Your task to perform on an android device: See recent photos Image 0: 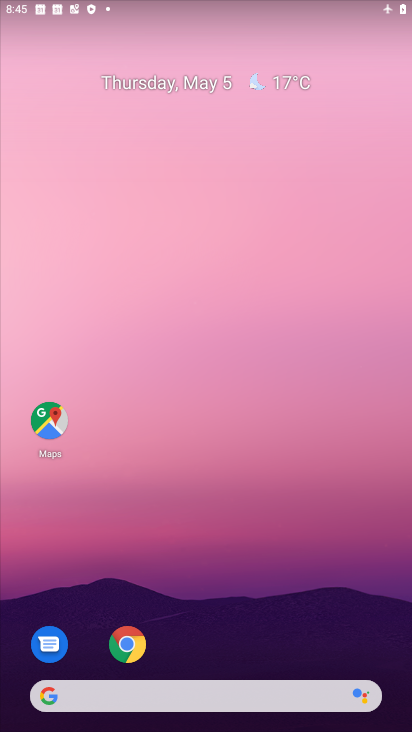
Step 0: drag from (194, 628) to (210, 155)
Your task to perform on an android device: See recent photos Image 1: 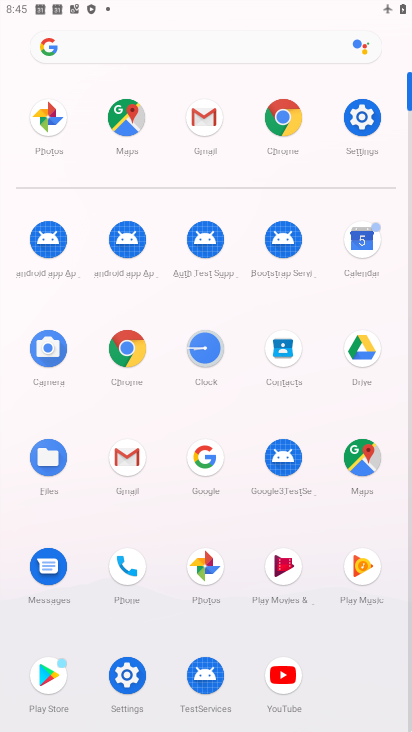
Step 1: click (219, 557)
Your task to perform on an android device: See recent photos Image 2: 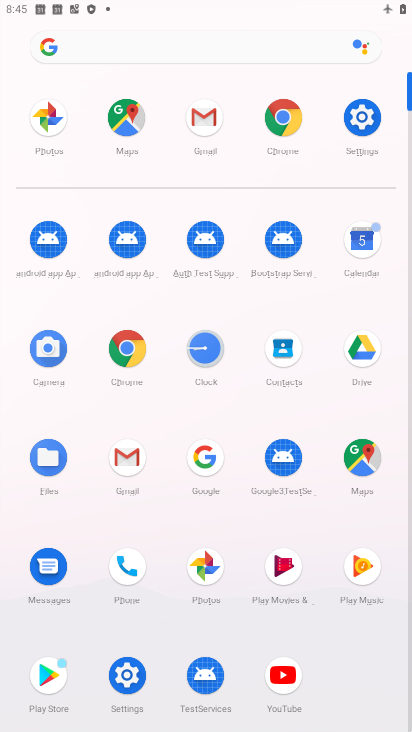
Step 2: click (219, 557)
Your task to perform on an android device: See recent photos Image 3: 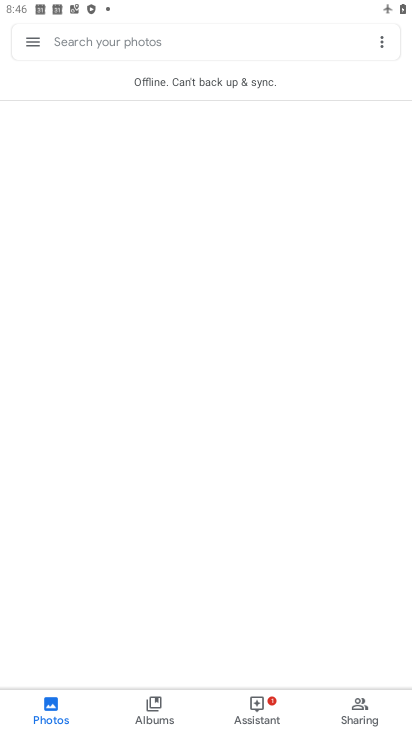
Step 3: click (30, 42)
Your task to perform on an android device: See recent photos Image 4: 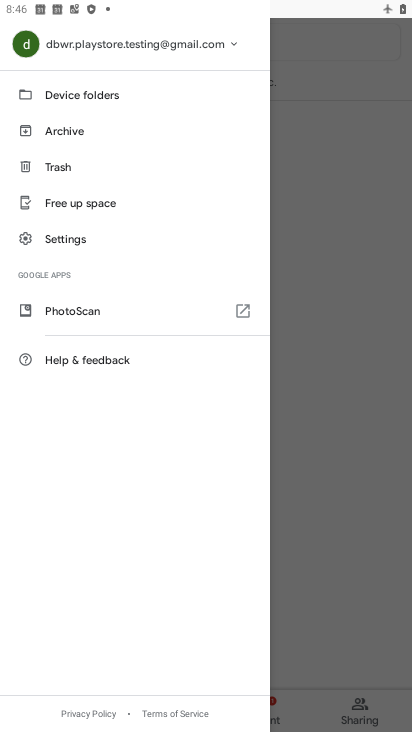
Step 4: click (309, 235)
Your task to perform on an android device: See recent photos Image 5: 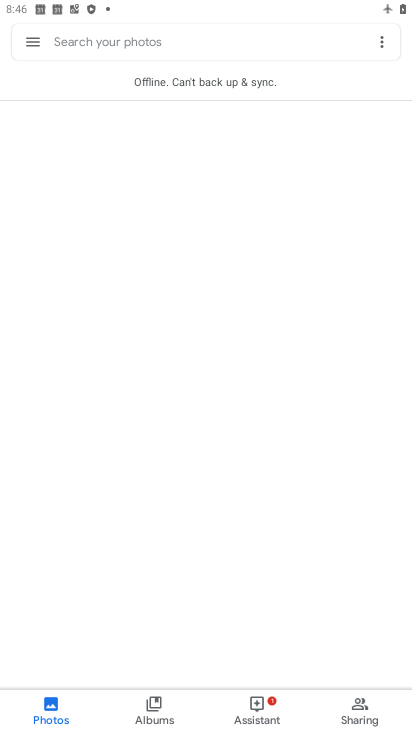
Step 5: click (300, 229)
Your task to perform on an android device: See recent photos Image 6: 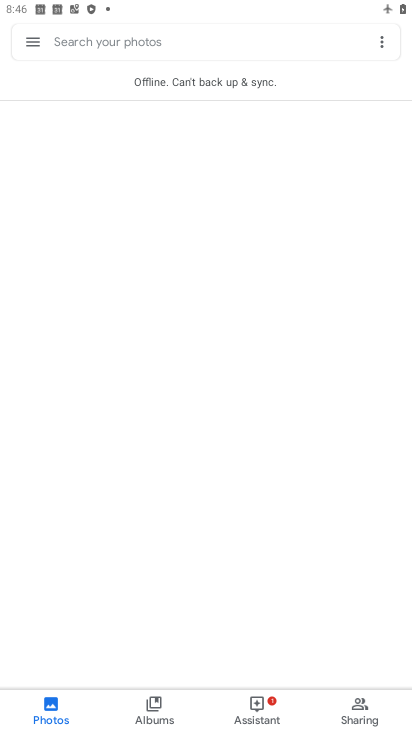
Step 6: click (188, 85)
Your task to perform on an android device: See recent photos Image 7: 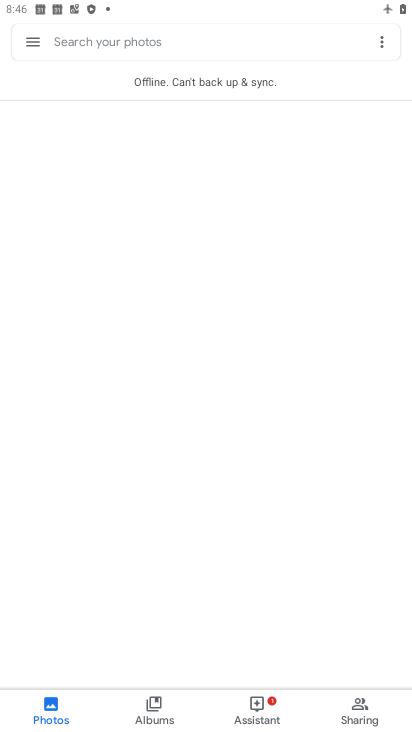
Step 7: click (188, 85)
Your task to perform on an android device: See recent photos Image 8: 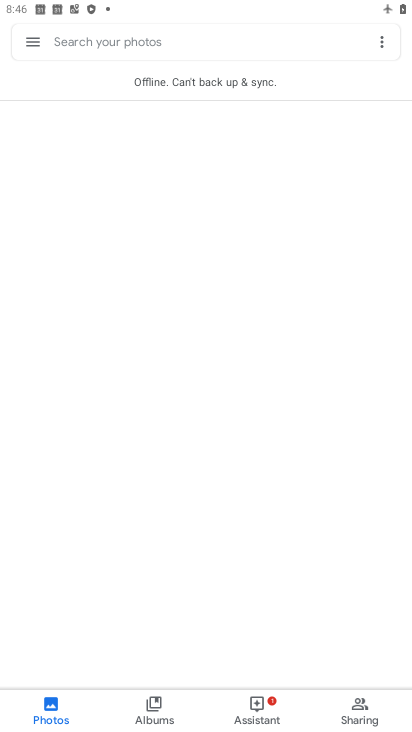
Step 8: click (189, 85)
Your task to perform on an android device: See recent photos Image 9: 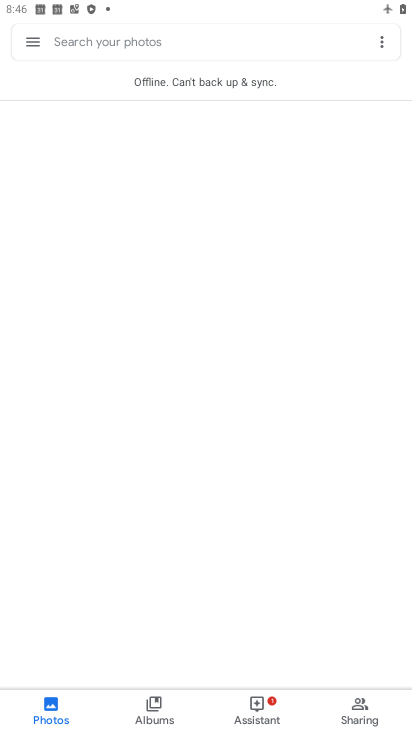
Step 9: click (208, 352)
Your task to perform on an android device: See recent photos Image 10: 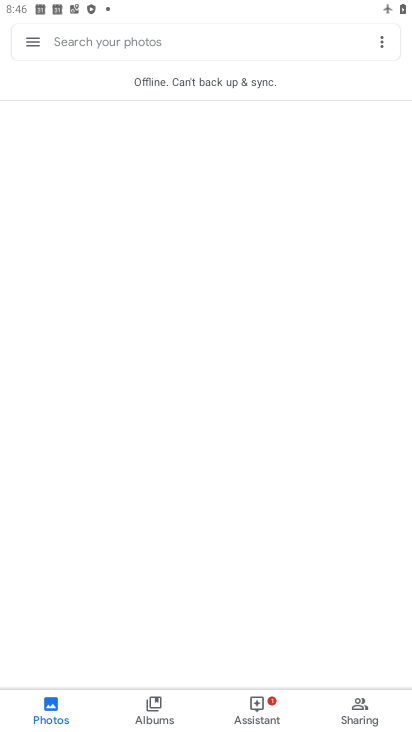
Step 10: click (181, 75)
Your task to perform on an android device: See recent photos Image 11: 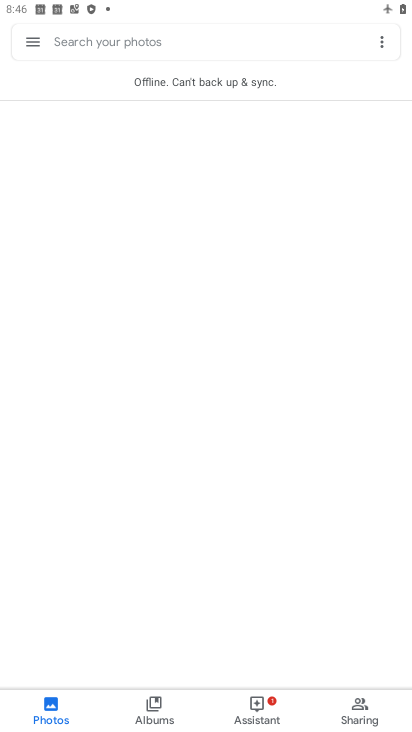
Step 11: click (202, 76)
Your task to perform on an android device: See recent photos Image 12: 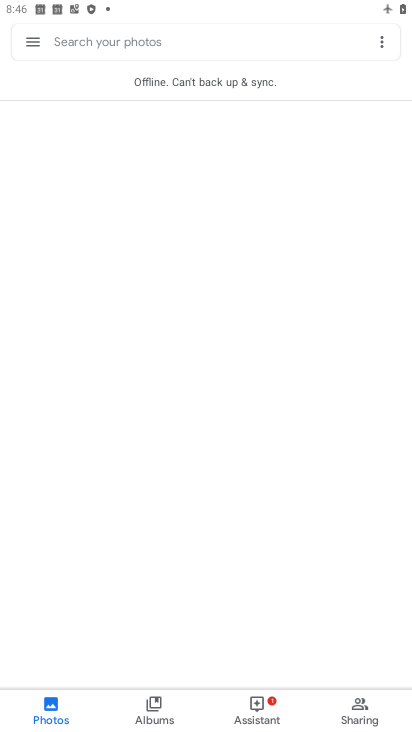
Step 12: drag from (262, 456) to (292, 322)
Your task to perform on an android device: See recent photos Image 13: 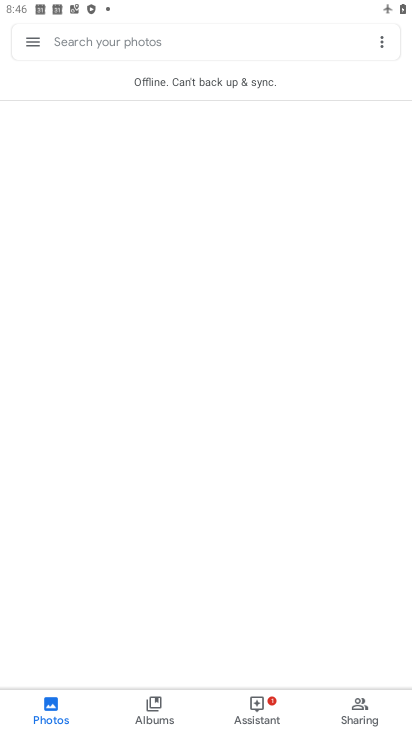
Step 13: click (138, 721)
Your task to perform on an android device: See recent photos Image 14: 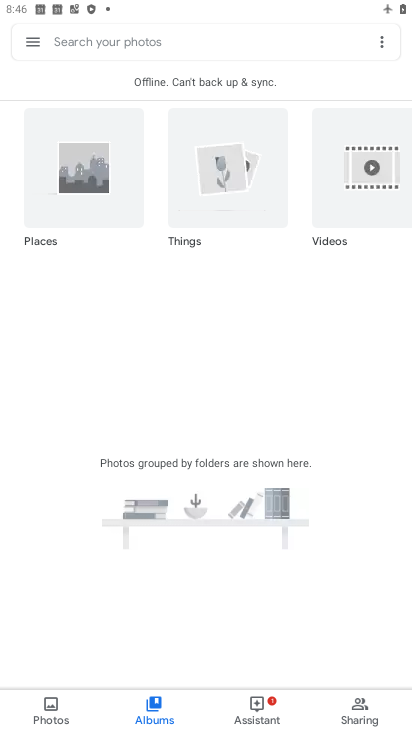
Step 14: click (99, 212)
Your task to perform on an android device: See recent photos Image 15: 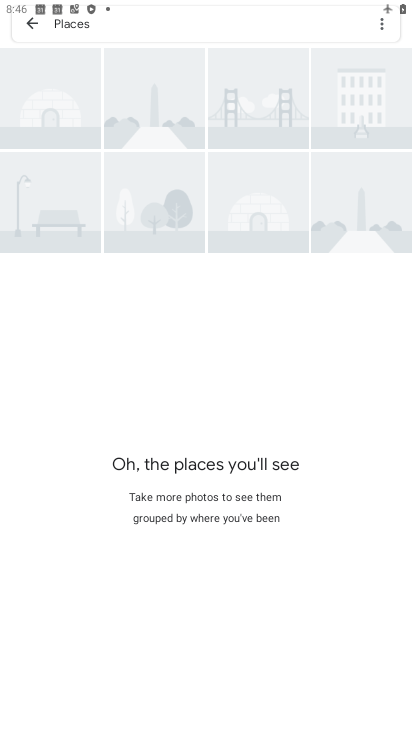
Step 15: task complete